Your task to perform on an android device: Search for vegetarian restaurants on Maps Image 0: 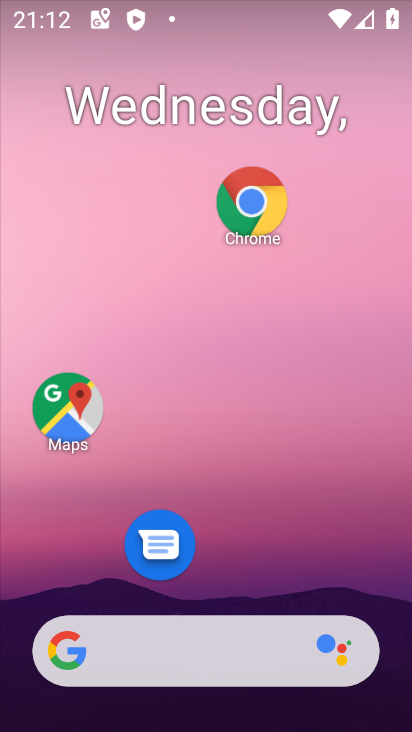
Step 0: click (88, 402)
Your task to perform on an android device: Search for vegetarian restaurants on Maps Image 1: 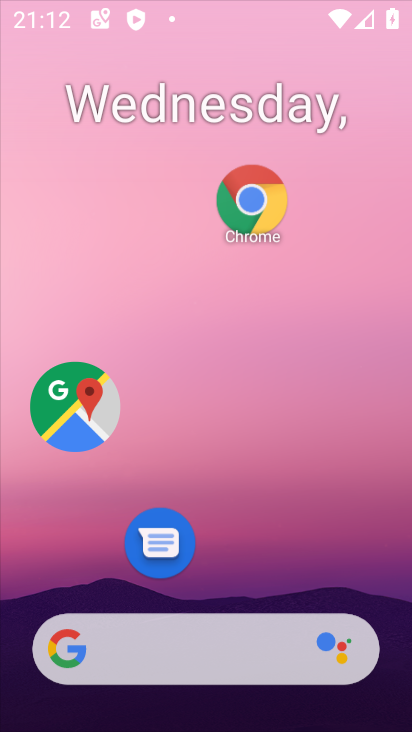
Step 1: click (88, 402)
Your task to perform on an android device: Search for vegetarian restaurants on Maps Image 2: 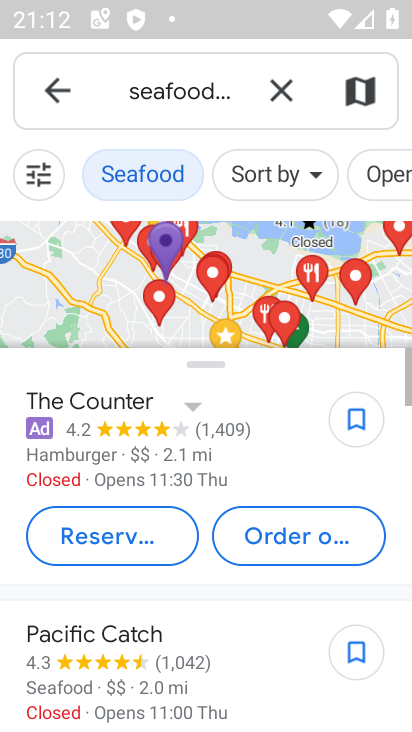
Step 2: click (274, 94)
Your task to perform on an android device: Search for vegetarian restaurants on Maps Image 3: 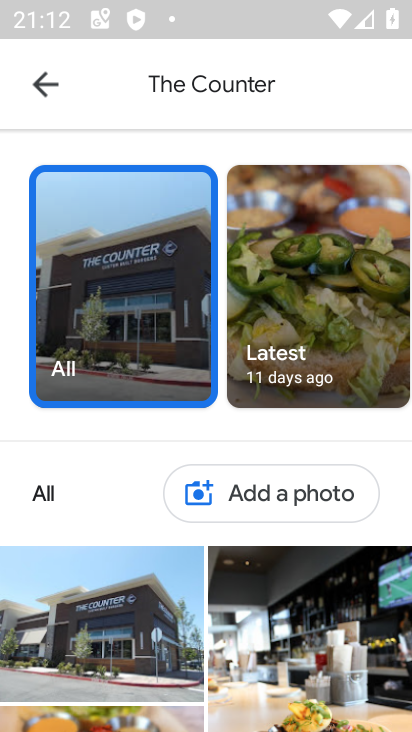
Step 3: click (51, 108)
Your task to perform on an android device: Search for vegetarian restaurants on Maps Image 4: 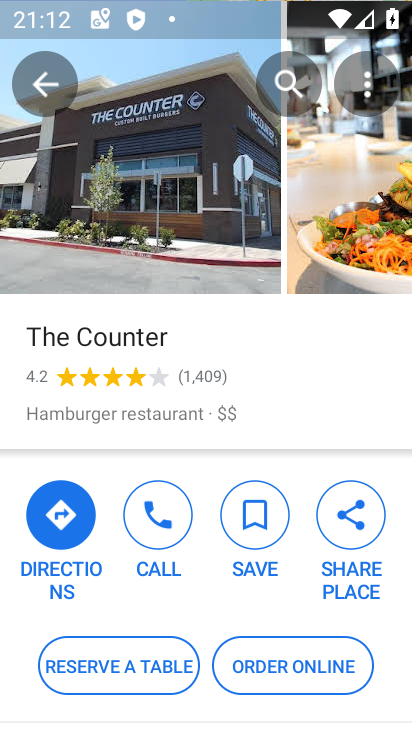
Step 4: click (56, 65)
Your task to perform on an android device: Search for vegetarian restaurants on Maps Image 5: 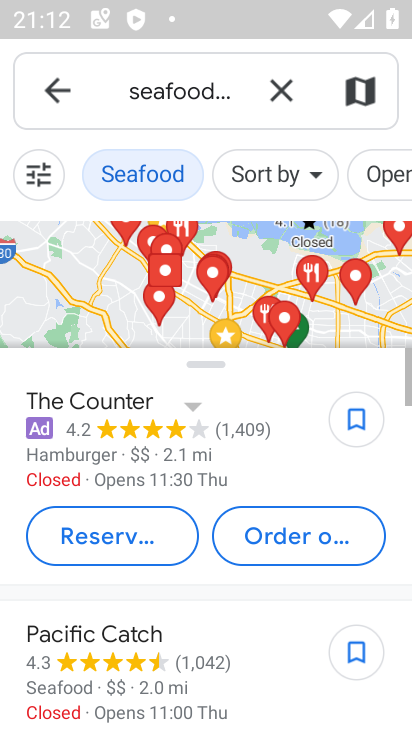
Step 5: click (278, 87)
Your task to perform on an android device: Search for vegetarian restaurants on Maps Image 6: 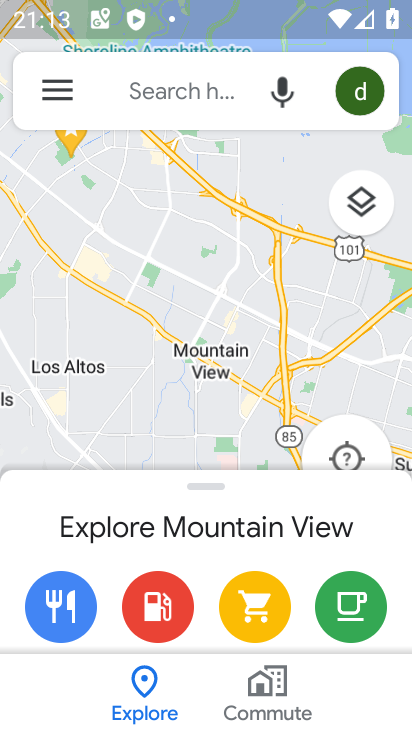
Step 6: click (174, 86)
Your task to perform on an android device: Search for vegetarian restaurants on Maps Image 7: 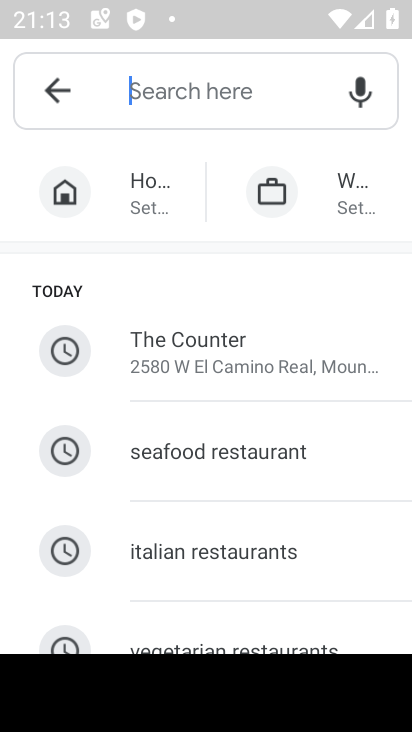
Step 7: click (142, 646)
Your task to perform on an android device: Search for vegetarian restaurants on Maps Image 8: 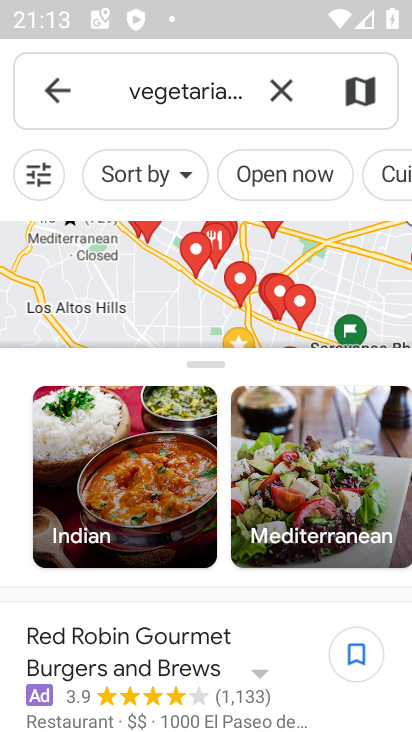
Step 8: task complete